Your task to perform on an android device: Show the shopping cart on newegg.com. Add "panasonic triple a" to the cart on newegg.com Image 0: 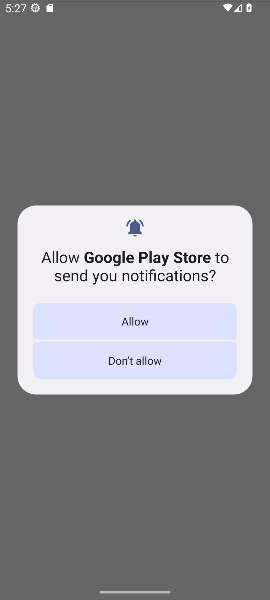
Step 0: press home button
Your task to perform on an android device: Show the shopping cart on newegg.com. Add "panasonic triple a" to the cart on newegg.com Image 1: 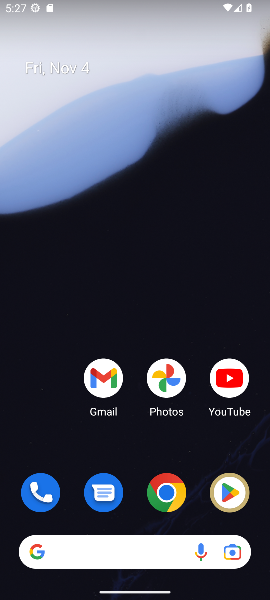
Step 1: drag from (131, 456) to (127, 47)
Your task to perform on an android device: Show the shopping cart on newegg.com. Add "panasonic triple a" to the cart on newegg.com Image 2: 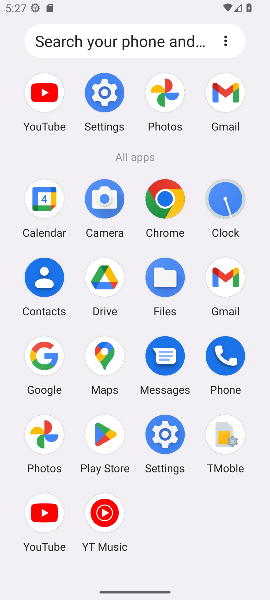
Step 2: click (166, 200)
Your task to perform on an android device: Show the shopping cart on newegg.com. Add "panasonic triple a" to the cart on newegg.com Image 3: 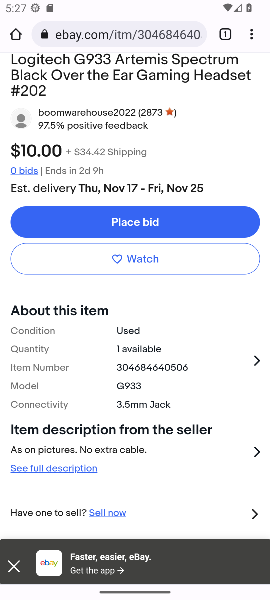
Step 3: click (136, 35)
Your task to perform on an android device: Show the shopping cart on newegg.com. Add "panasonic triple a" to the cart on newegg.com Image 4: 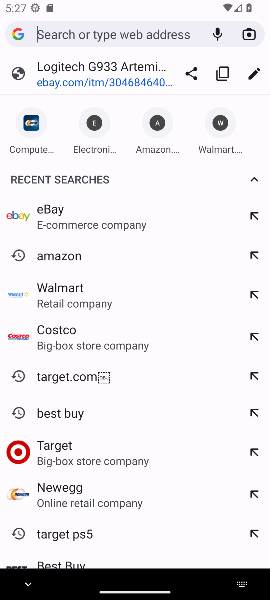
Step 4: type "newegg.com"
Your task to perform on an android device: Show the shopping cart on newegg.com. Add "panasonic triple a" to the cart on newegg.com Image 5: 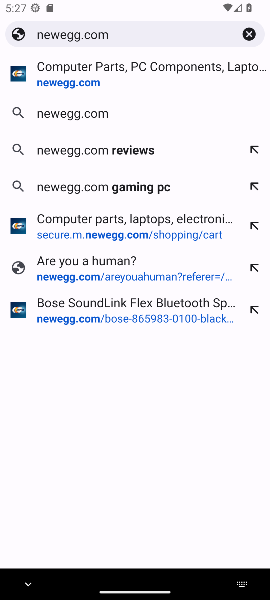
Step 5: press enter
Your task to perform on an android device: Show the shopping cart on newegg.com. Add "panasonic triple a" to the cart on newegg.com Image 6: 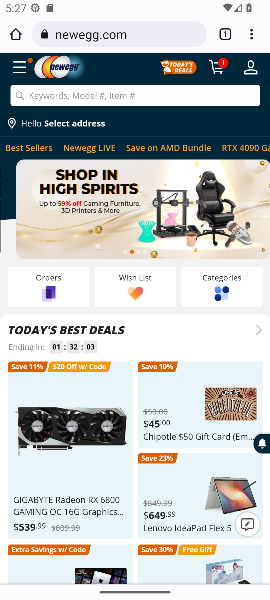
Step 6: click (221, 71)
Your task to perform on an android device: Show the shopping cart on newegg.com. Add "panasonic triple a" to the cart on newegg.com Image 7: 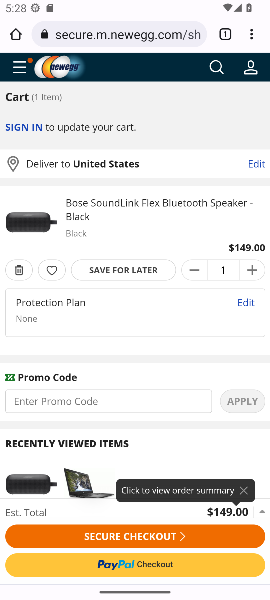
Step 7: click (210, 59)
Your task to perform on an android device: Show the shopping cart on newegg.com. Add "panasonic triple a" to the cart on newegg.com Image 8: 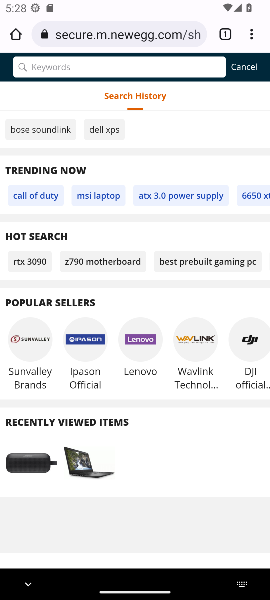
Step 8: type "panasonic triple a"
Your task to perform on an android device: Show the shopping cart on newegg.com. Add "panasonic triple a" to the cart on newegg.com Image 9: 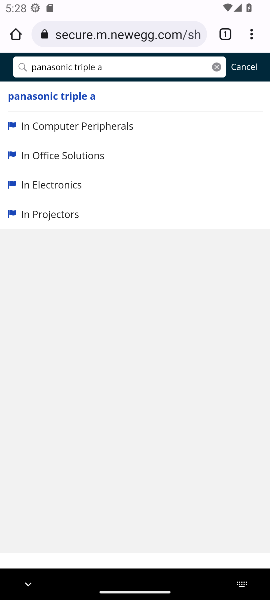
Step 9: press enter
Your task to perform on an android device: Show the shopping cart on newegg.com. Add "panasonic triple a" to the cart on newegg.com Image 10: 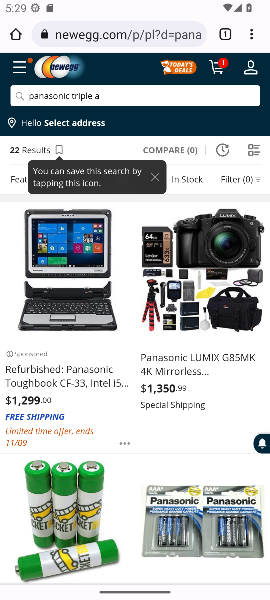
Step 10: drag from (207, 432) to (214, 175)
Your task to perform on an android device: Show the shopping cart on newegg.com. Add "panasonic triple a" to the cart on newegg.com Image 11: 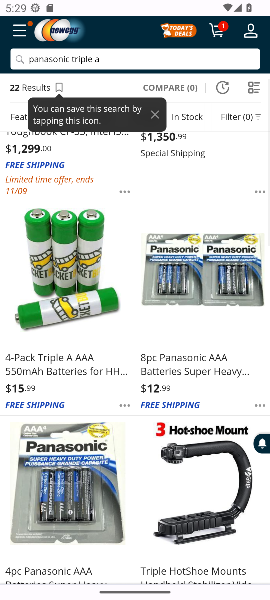
Step 11: click (205, 276)
Your task to perform on an android device: Show the shopping cart on newegg.com. Add "panasonic triple a" to the cart on newegg.com Image 12: 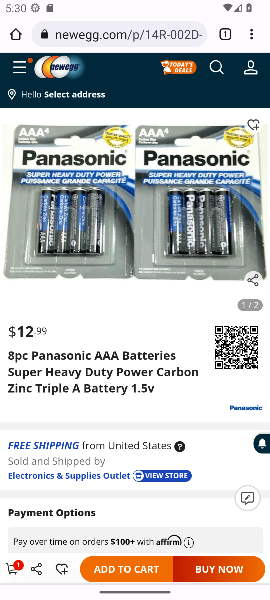
Step 12: click (143, 570)
Your task to perform on an android device: Show the shopping cart on newegg.com. Add "panasonic triple a" to the cart on newegg.com Image 13: 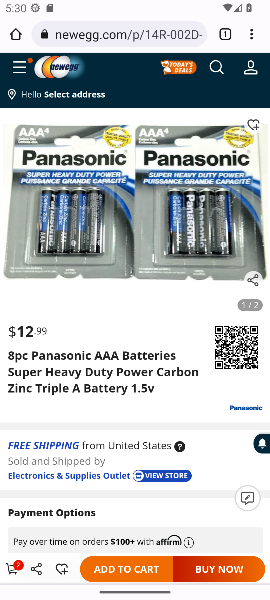
Step 13: task complete